Your task to perform on an android device: Open Android settings Image 0: 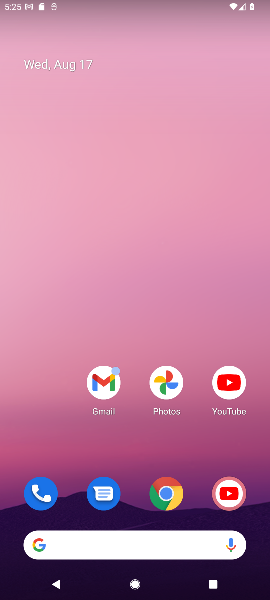
Step 0: press home button
Your task to perform on an android device: Open Android settings Image 1: 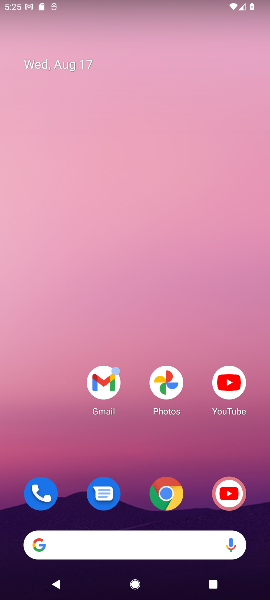
Step 1: drag from (128, 521) to (105, 5)
Your task to perform on an android device: Open Android settings Image 2: 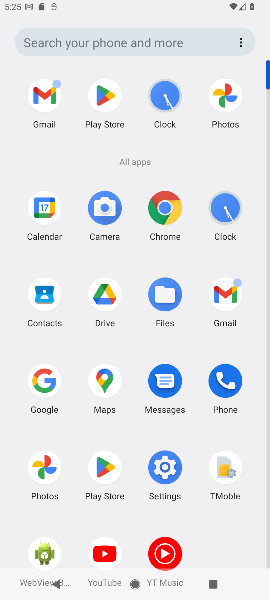
Step 2: click (162, 475)
Your task to perform on an android device: Open Android settings Image 3: 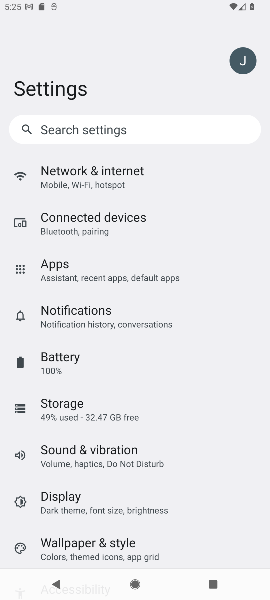
Step 3: task complete